Your task to perform on an android device: Turn on the flashlight Image 0: 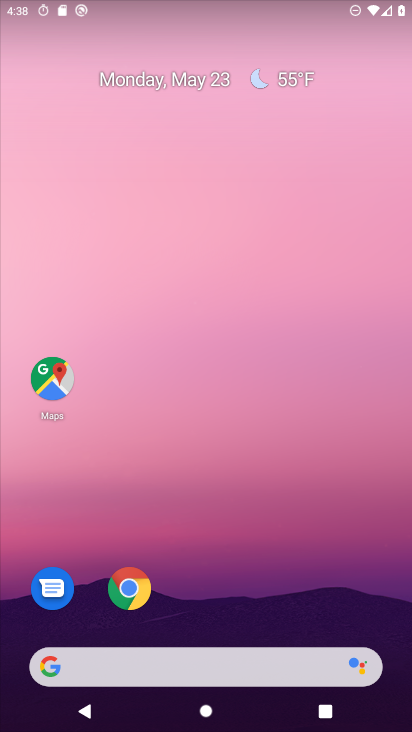
Step 0: drag from (249, 603) to (242, 114)
Your task to perform on an android device: Turn on the flashlight Image 1: 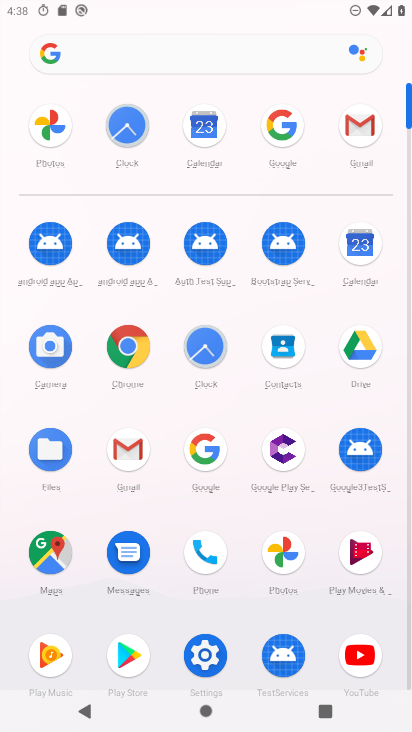
Step 1: click (205, 656)
Your task to perform on an android device: Turn on the flashlight Image 2: 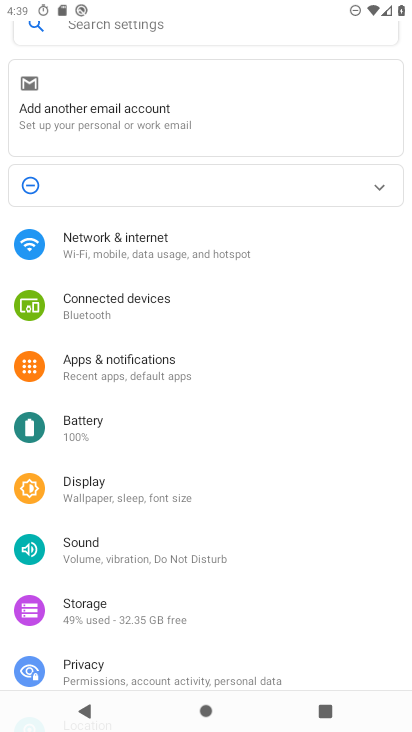
Step 2: click (176, 178)
Your task to perform on an android device: Turn on the flashlight Image 3: 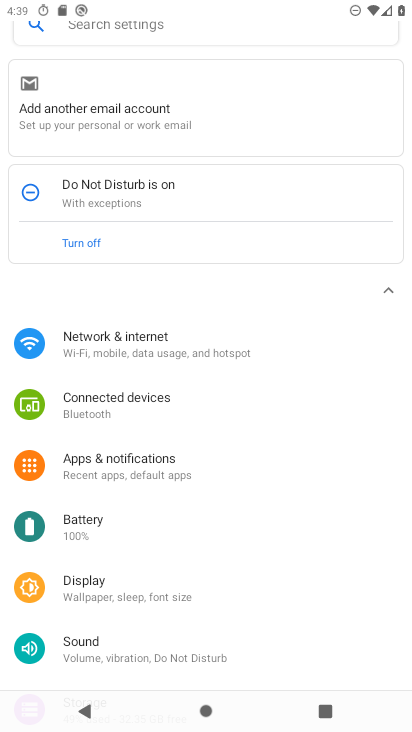
Step 3: click (170, 21)
Your task to perform on an android device: Turn on the flashlight Image 4: 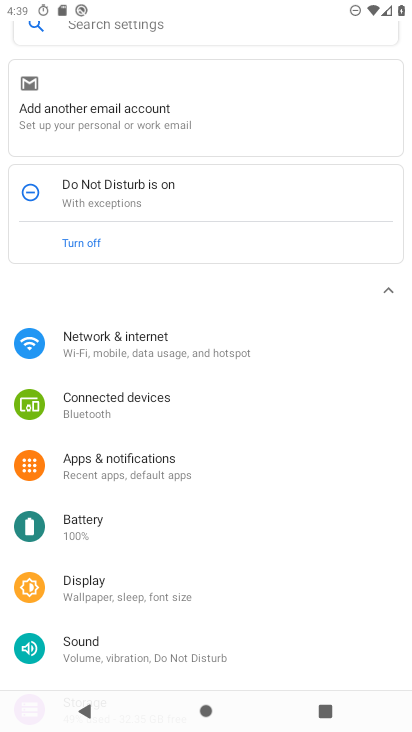
Step 4: click (137, 28)
Your task to perform on an android device: Turn on the flashlight Image 5: 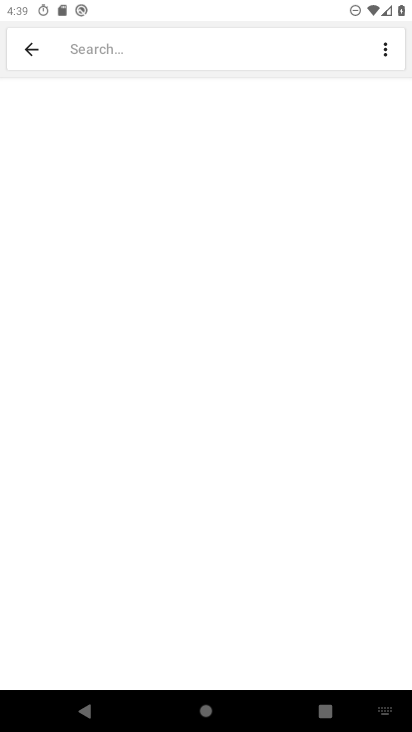
Step 5: type "flash"
Your task to perform on an android device: Turn on the flashlight Image 6: 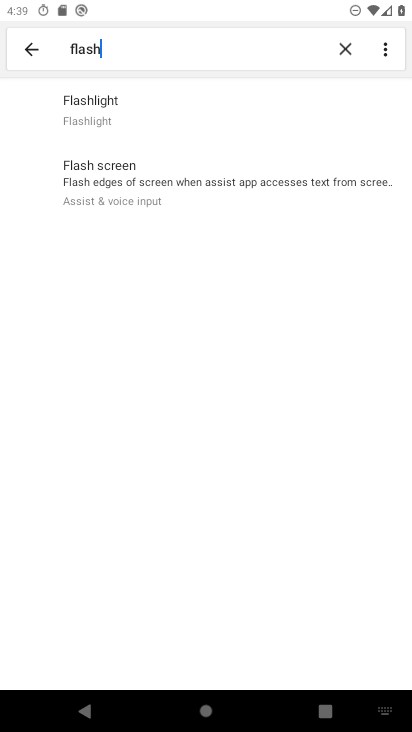
Step 6: task complete